Your task to perform on an android device: Open my contact list Image 0: 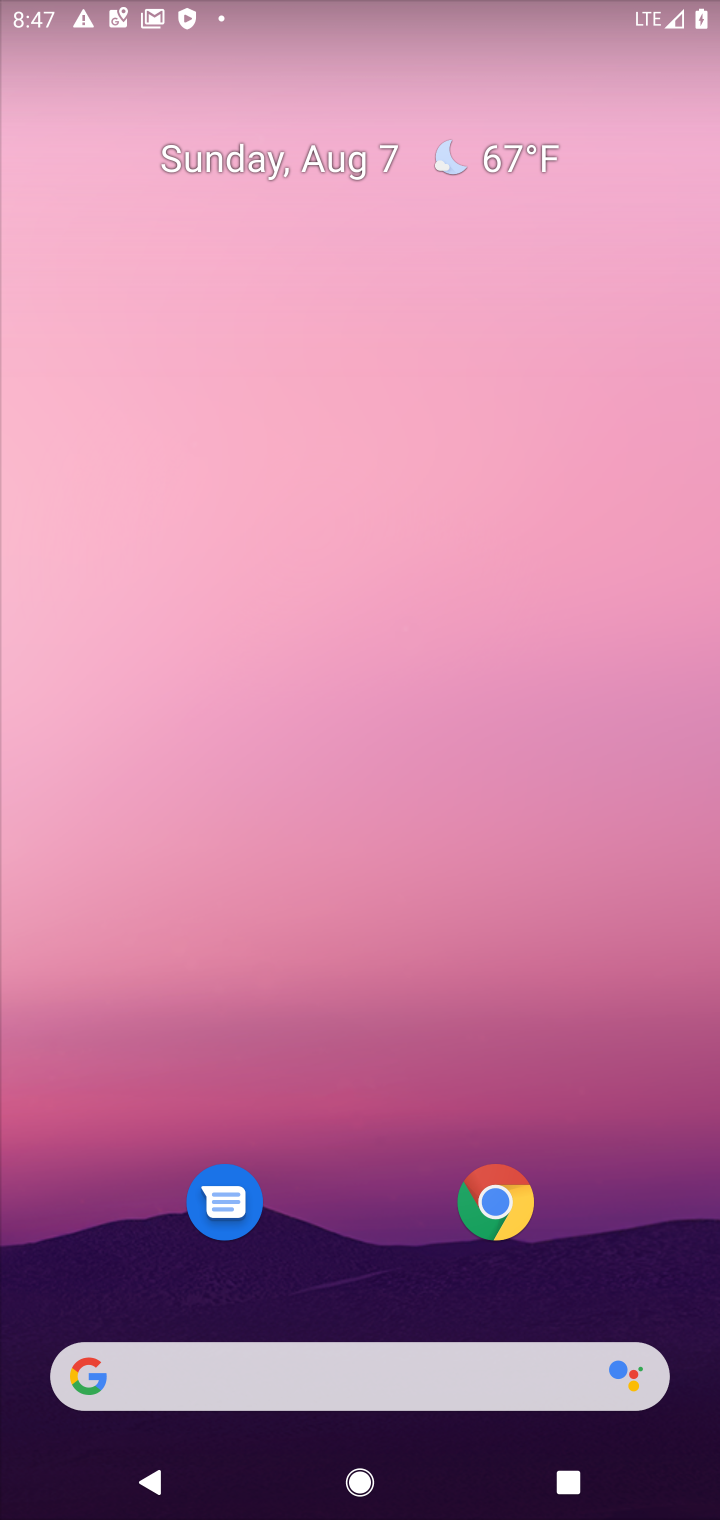
Step 0: drag from (351, 1271) to (359, 378)
Your task to perform on an android device: Open my contact list Image 1: 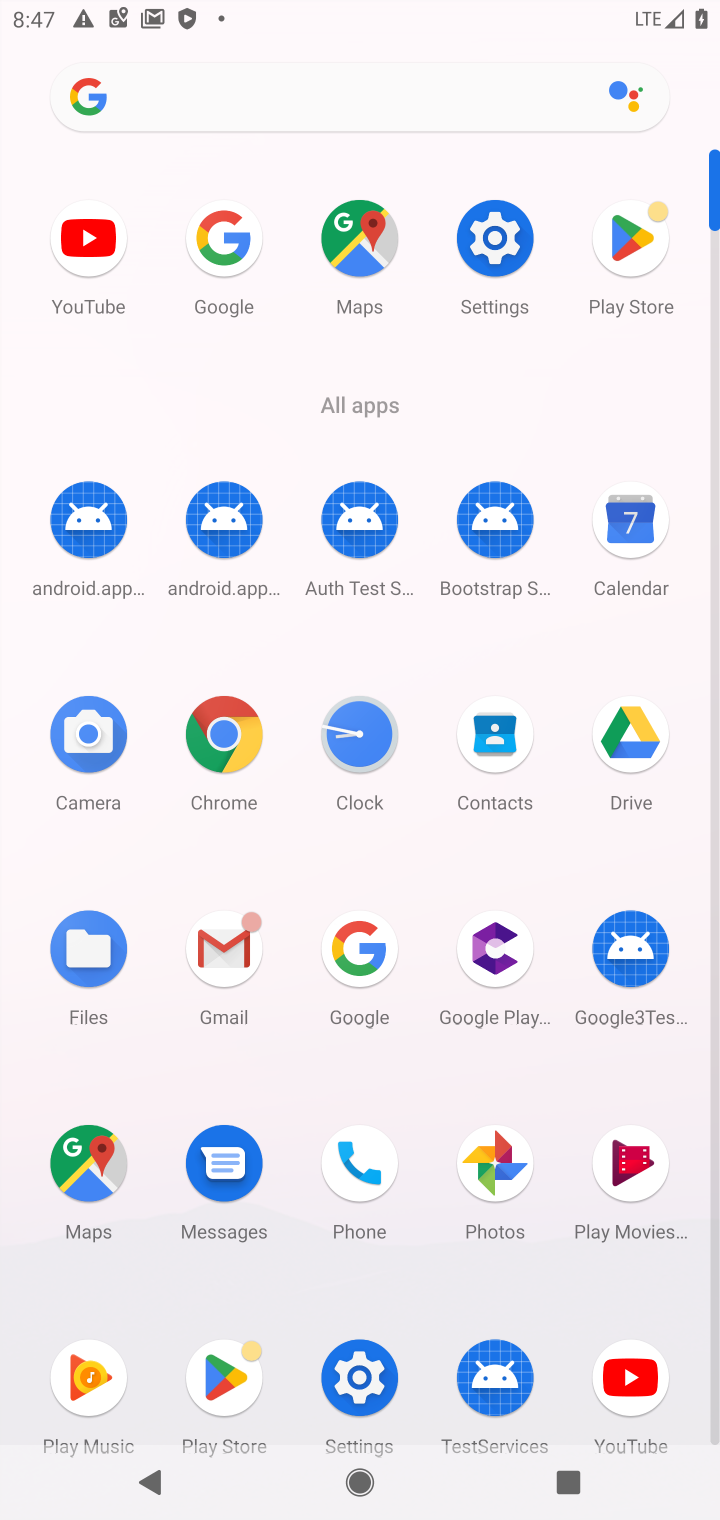
Step 1: click (500, 725)
Your task to perform on an android device: Open my contact list Image 2: 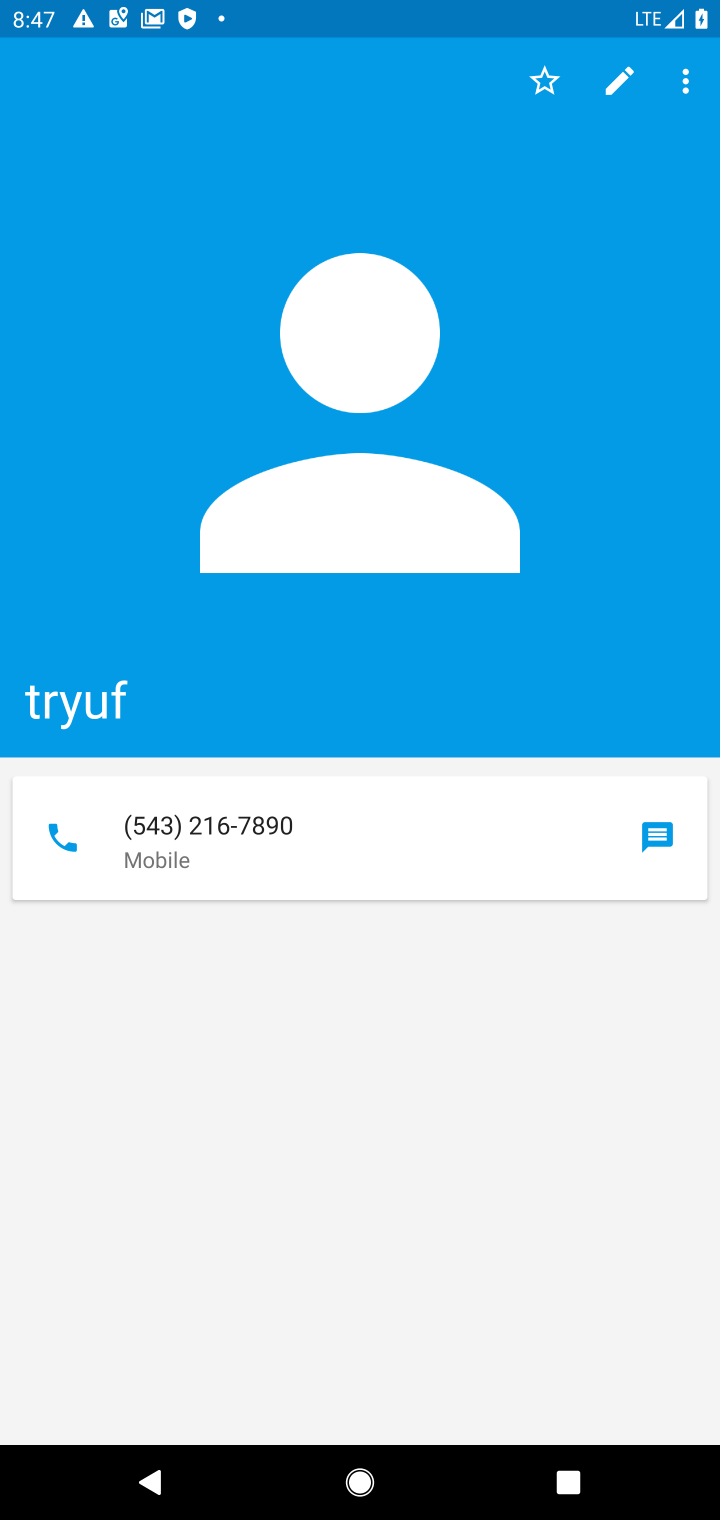
Step 2: task complete